Your task to perform on an android device: Go to display settings Image 0: 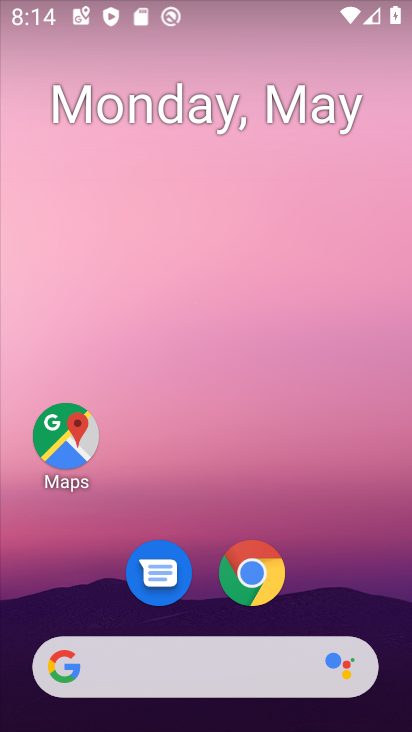
Step 0: drag from (355, 608) to (287, 29)
Your task to perform on an android device: Go to display settings Image 1: 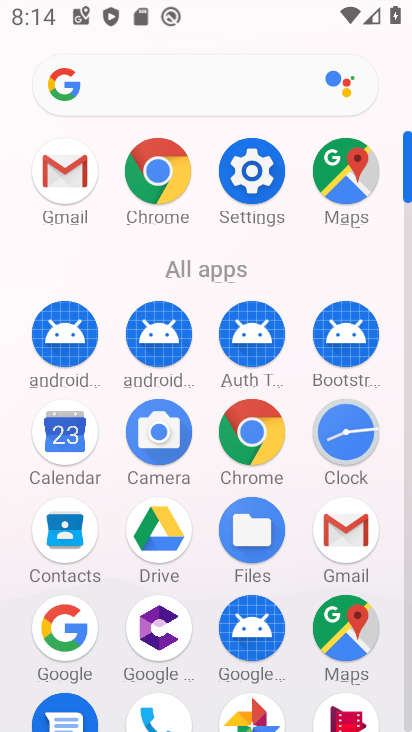
Step 1: click (248, 202)
Your task to perform on an android device: Go to display settings Image 2: 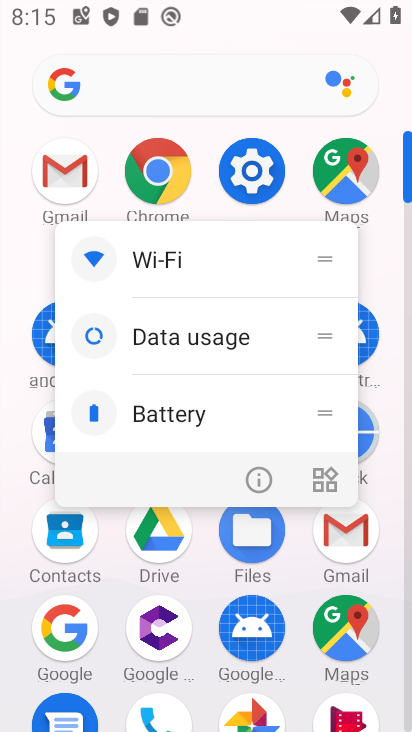
Step 2: click (235, 179)
Your task to perform on an android device: Go to display settings Image 3: 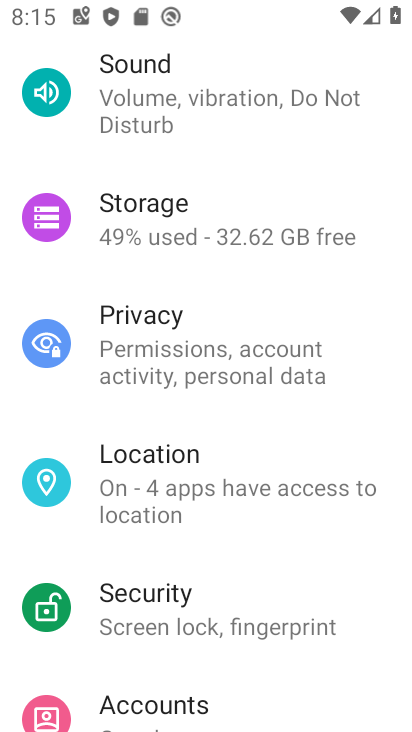
Step 3: drag from (212, 271) to (303, 613)
Your task to perform on an android device: Go to display settings Image 4: 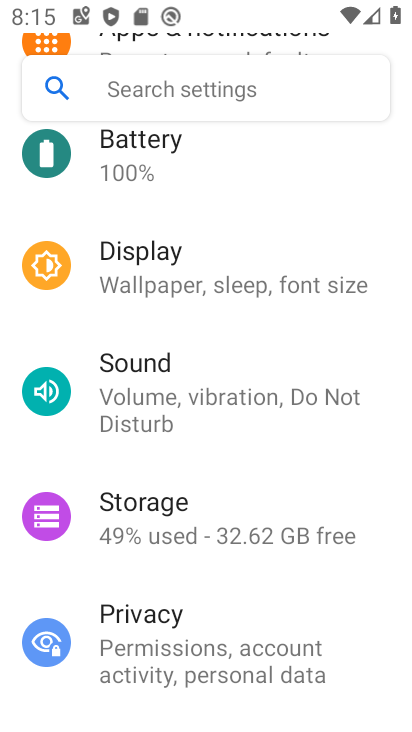
Step 4: click (185, 252)
Your task to perform on an android device: Go to display settings Image 5: 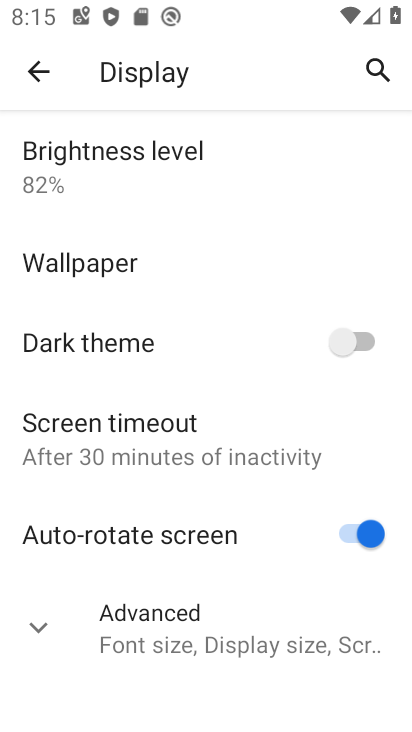
Step 5: task complete